Your task to perform on an android device: Show me the alarms in the clock app Image 0: 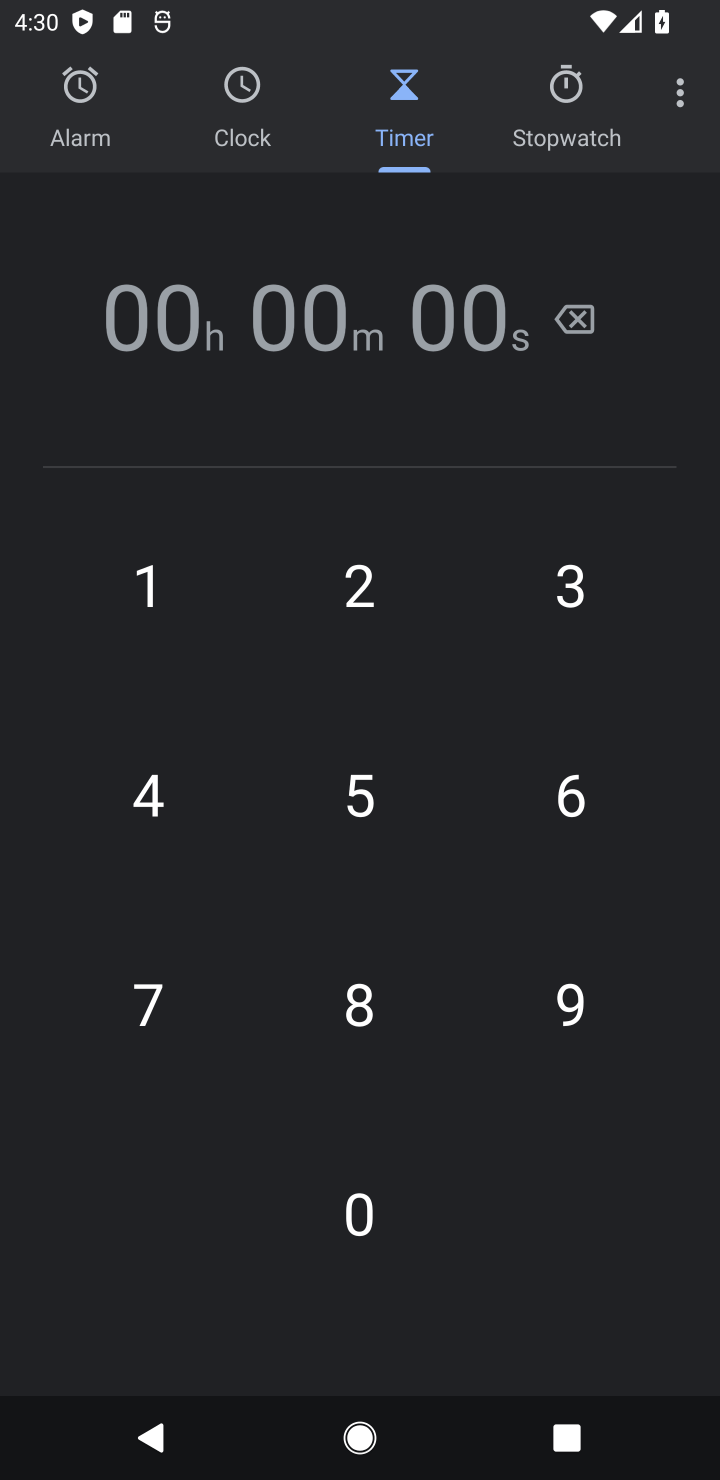
Step 0: press home button
Your task to perform on an android device: Show me the alarms in the clock app Image 1: 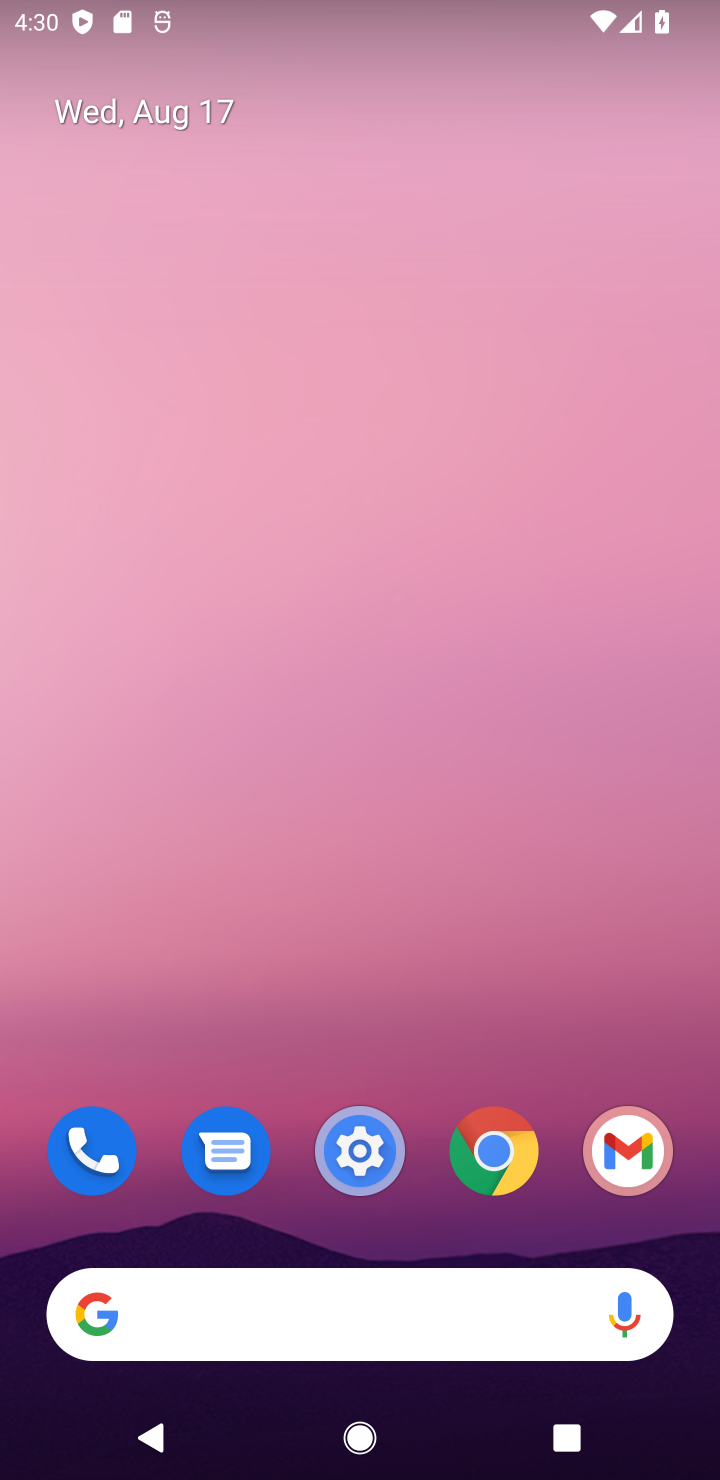
Step 1: drag from (333, 1255) to (349, 93)
Your task to perform on an android device: Show me the alarms in the clock app Image 2: 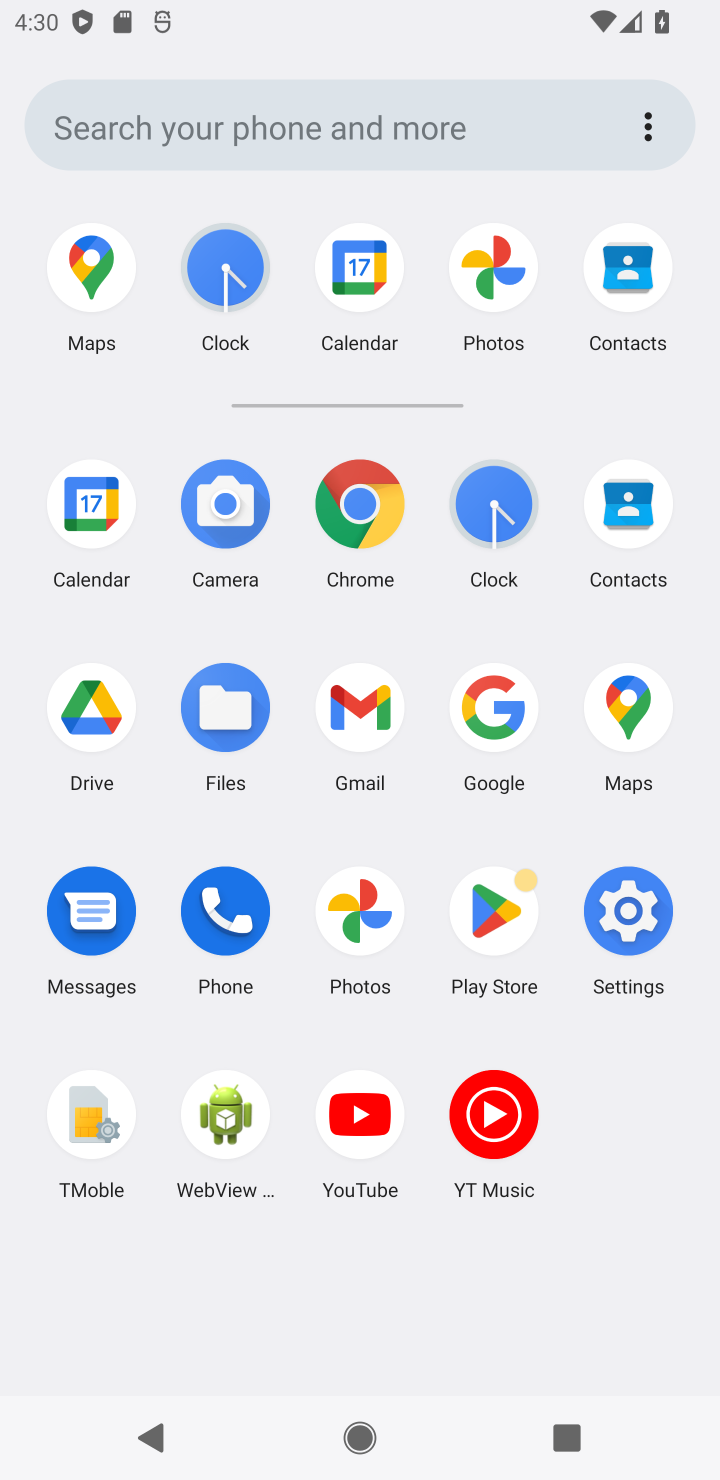
Step 2: click (239, 281)
Your task to perform on an android device: Show me the alarms in the clock app Image 3: 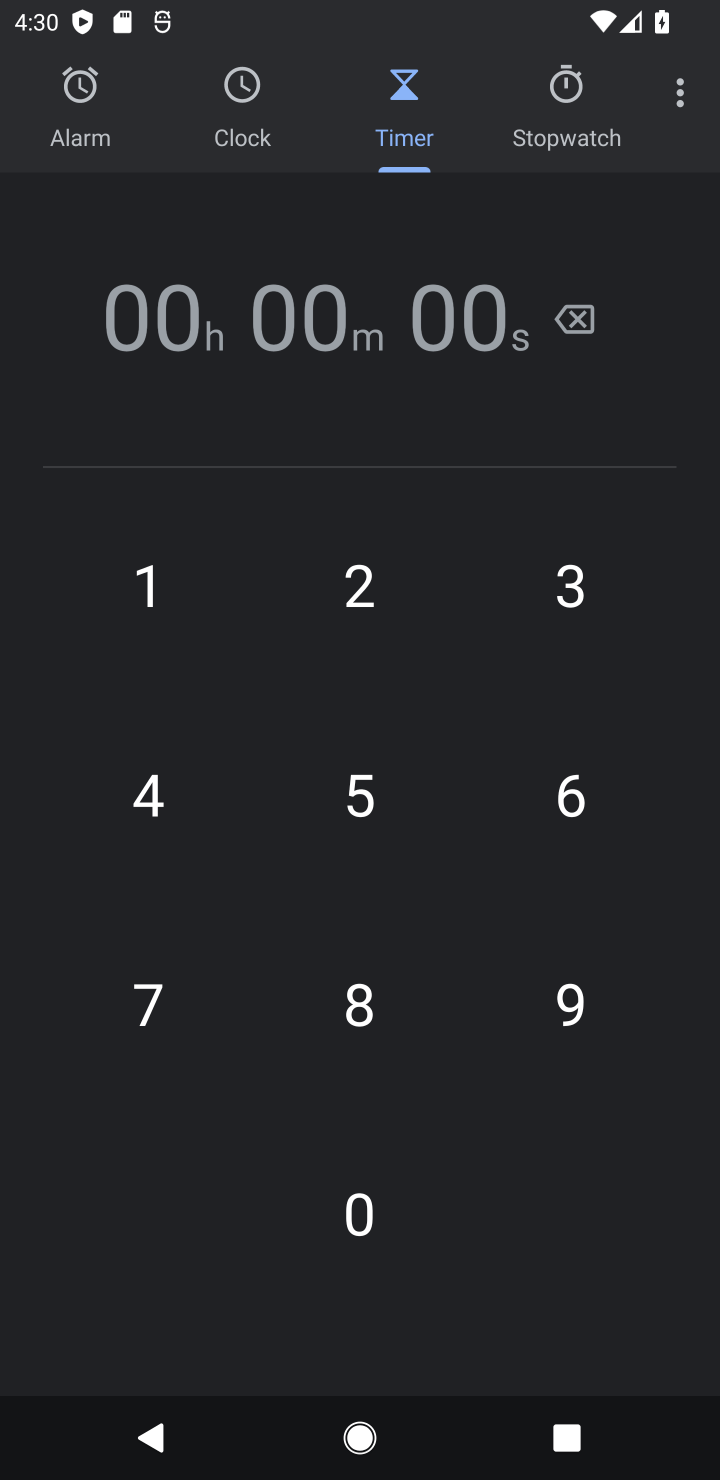
Step 3: click (675, 107)
Your task to perform on an android device: Show me the alarms in the clock app Image 4: 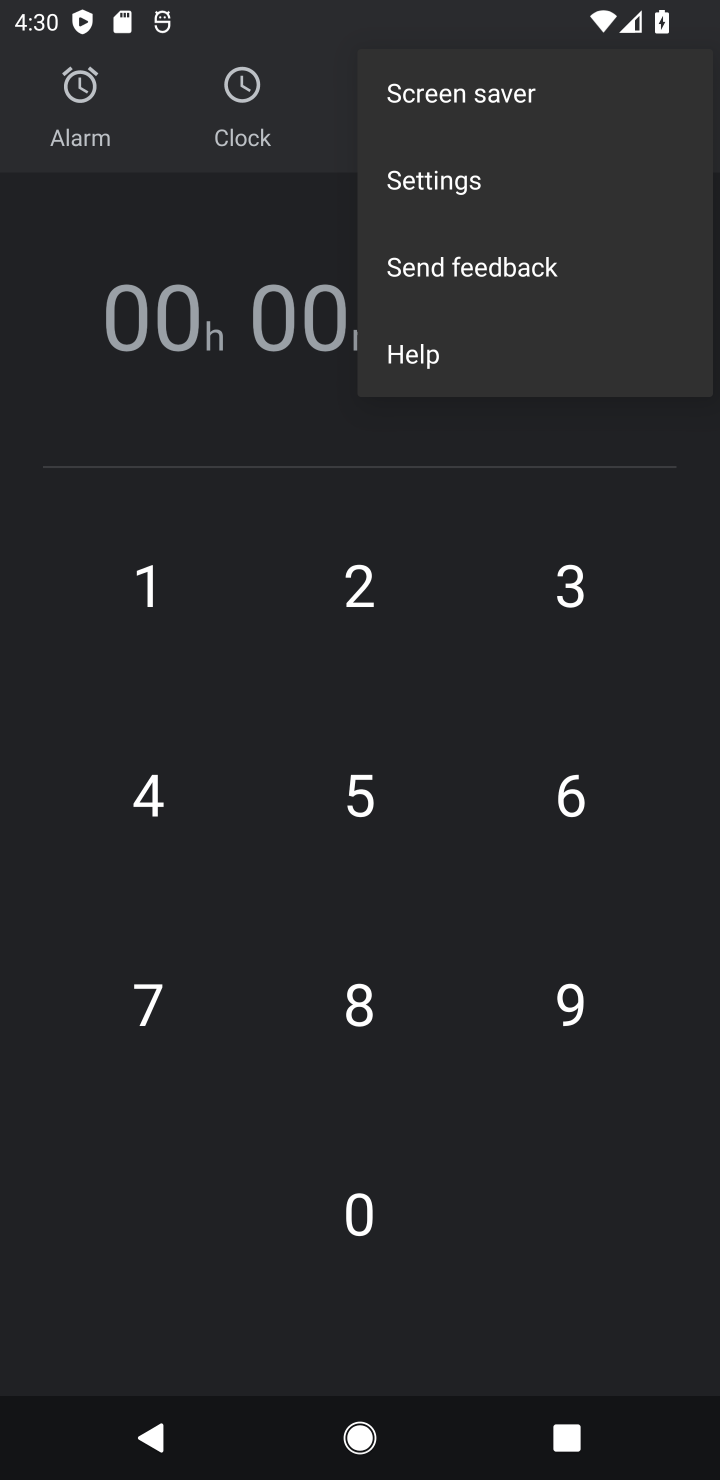
Step 4: click (104, 115)
Your task to perform on an android device: Show me the alarms in the clock app Image 5: 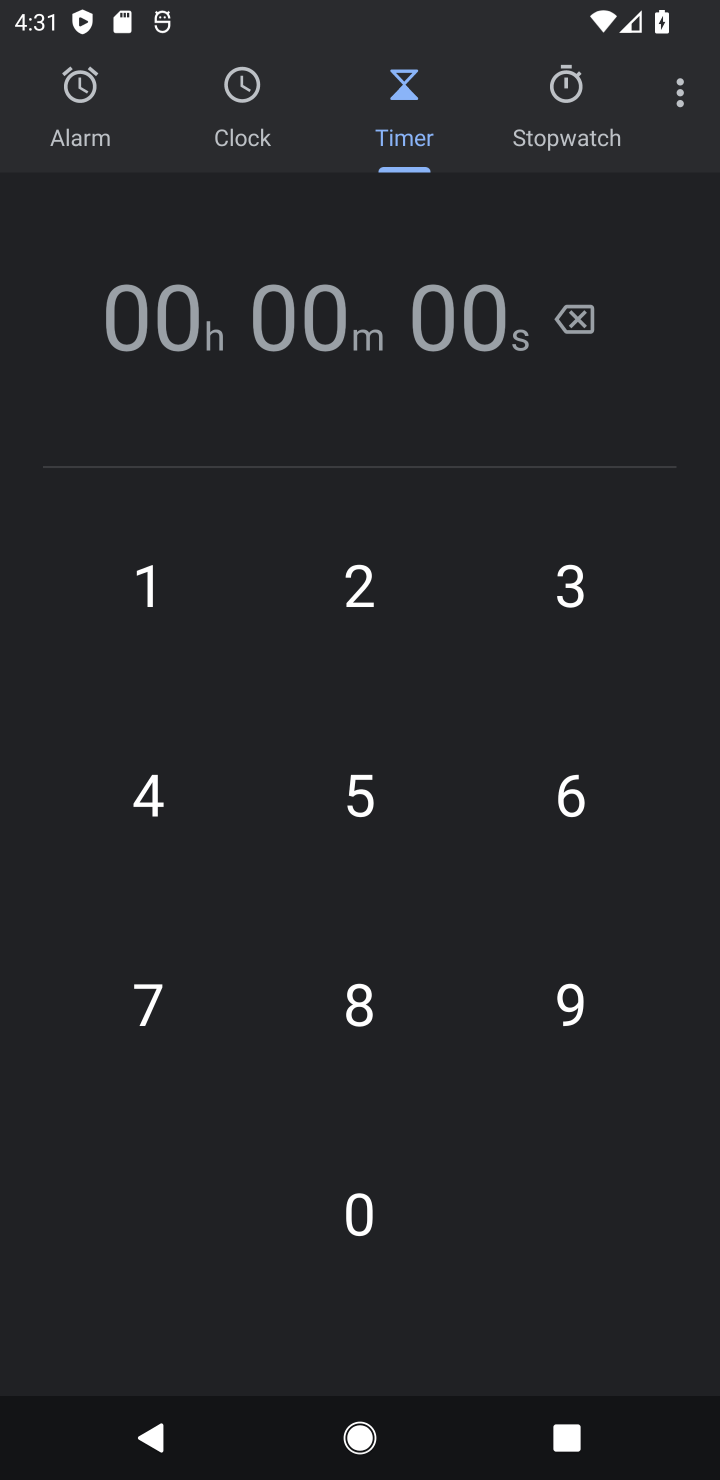
Step 5: click (104, 115)
Your task to perform on an android device: Show me the alarms in the clock app Image 6: 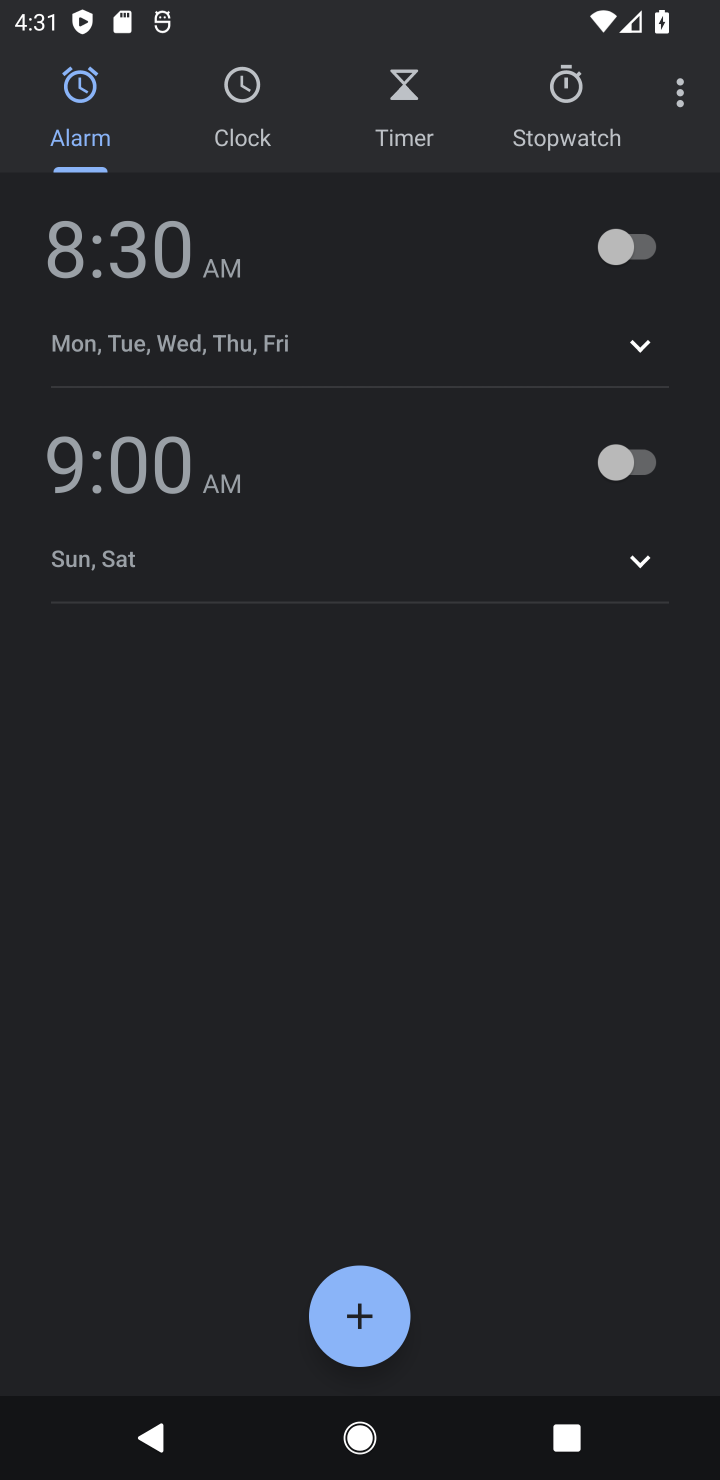
Step 6: click (668, 232)
Your task to perform on an android device: Show me the alarms in the clock app Image 7: 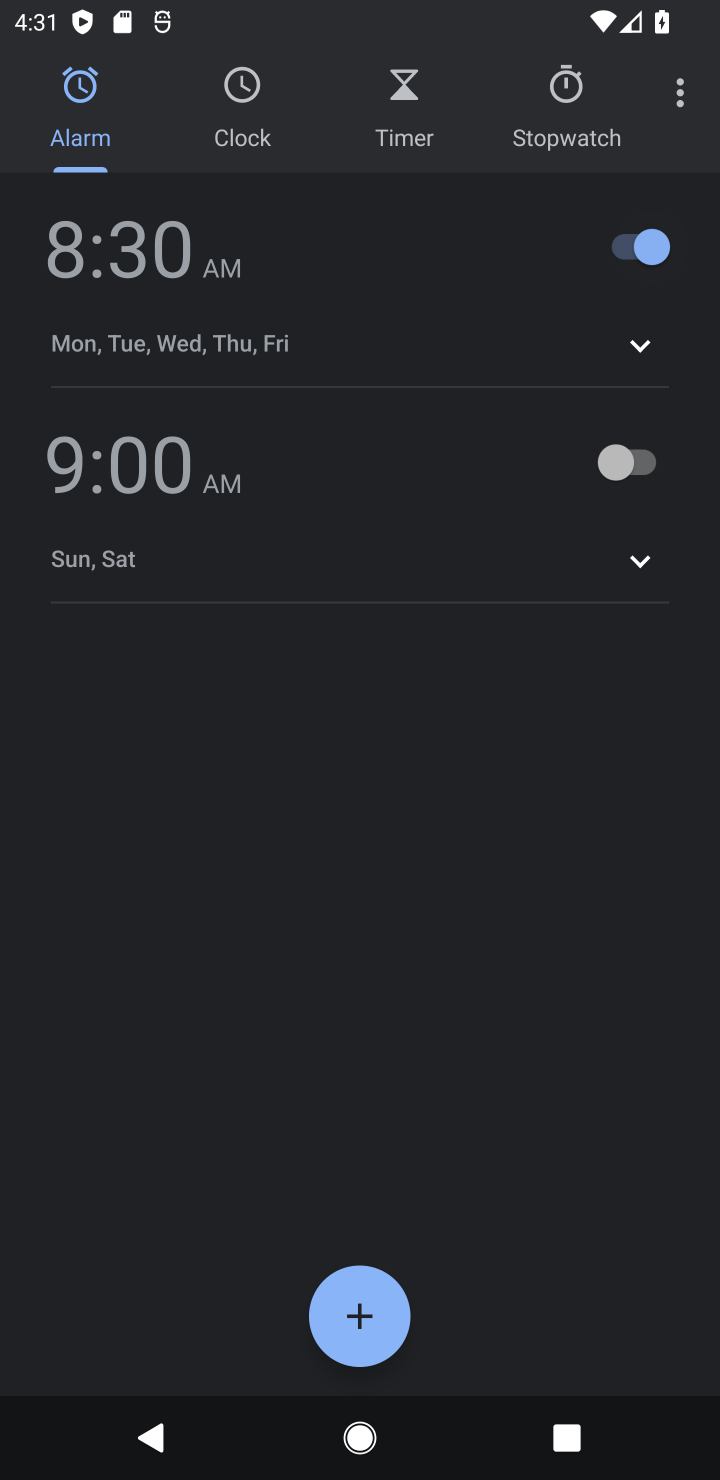
Step 7: task complete